Your task to perform on an android device: star an email in the gmail app Image 0: 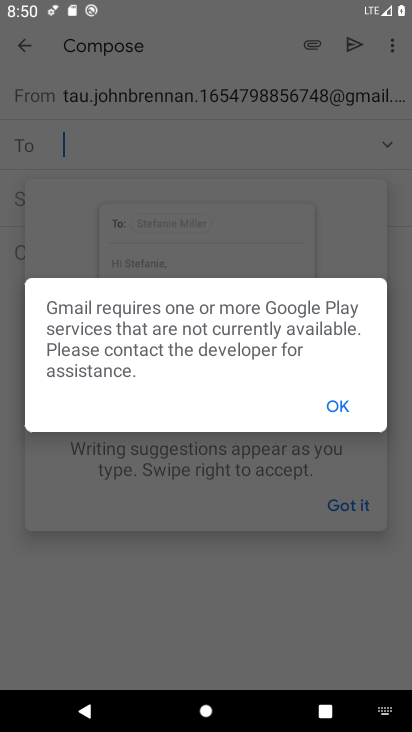
Step 0: press home button
Your task to perform on an android device: star an email in the gmail app Image 1: 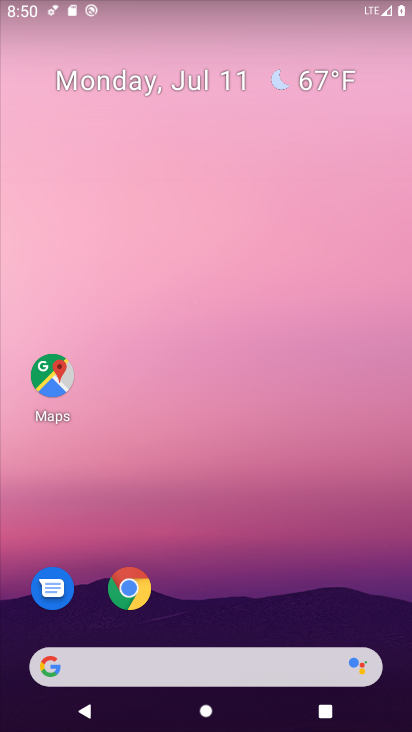
Step 1: drag from (245, 583) to (223, 107)
Your task to perform on an android device: star an email in the gmail app Image 2: 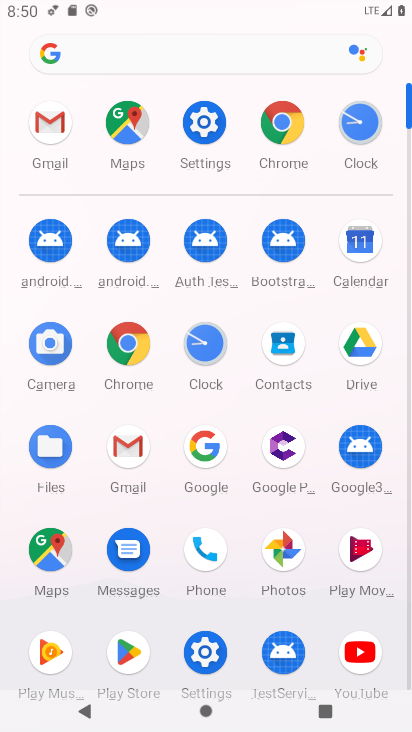
Step 2: click (49, 122)
Your task to perform on an android device: star an email in the gmail app Image 3: 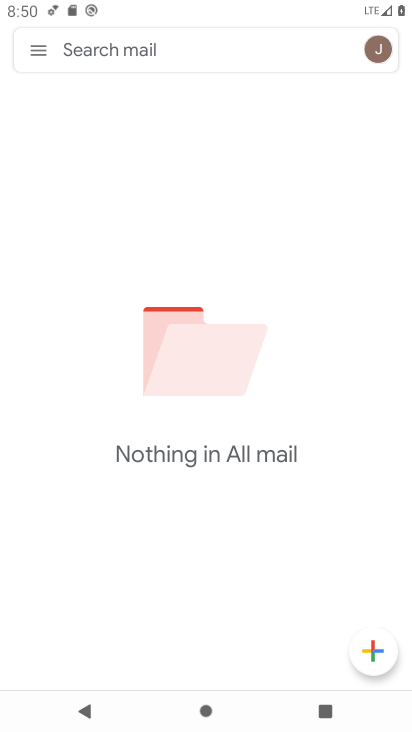
Step 3: task complete